Your task to perform on an android device: Search for pizza restaurants on Maps Image 0: 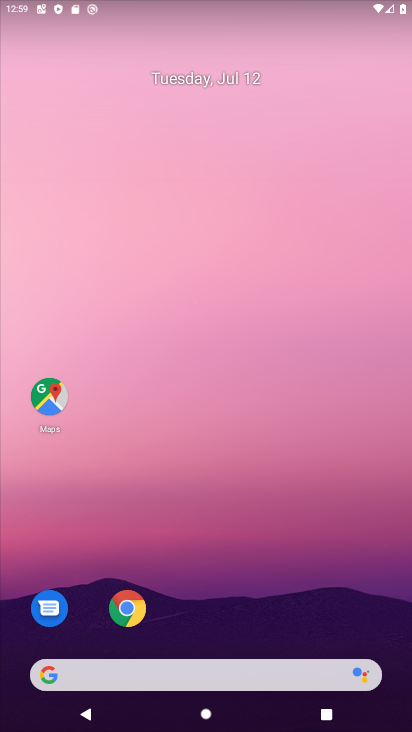
Step 0: click (304, 257)
Your task to perform on an android device: Search for pizza restaurants on Maps Image 1: 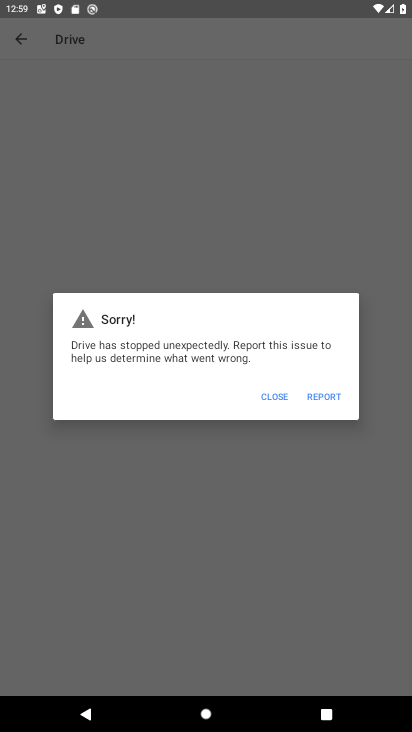
Step 1: press home button
Your task to perform on an android device: Search for pizza restaurants on Maps Image 2: 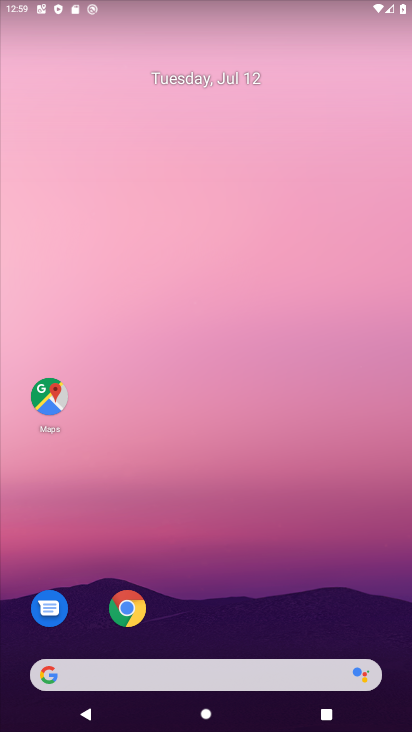
Step 2: drag from (251, 542) to (282, 246)
Your task to perform on an android device: Search for pizza restaurants on Maps Image 3: 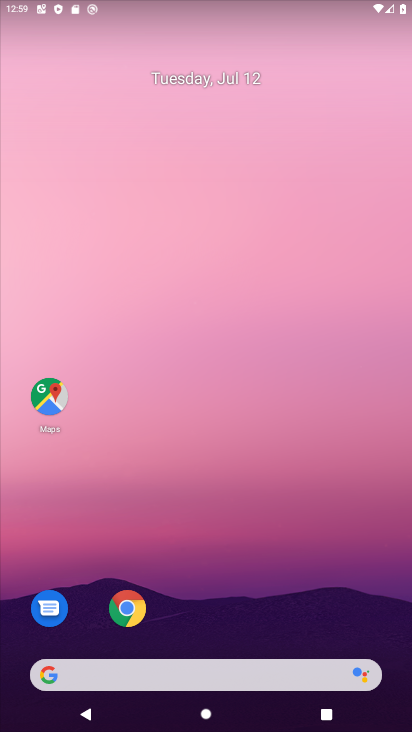
Step 3: drag from (267, 530) to (267, 305)
Your task to perform on an android device: Search for pizza restaurants on Maps Image 4: 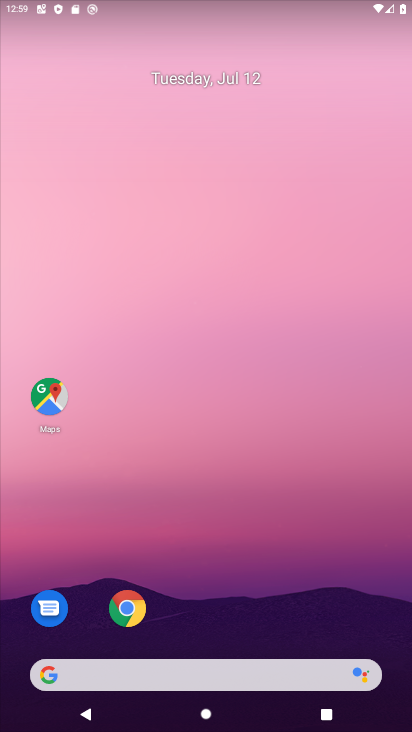
Step 4: drag from (281, 536) to (277, 128)
Your task to perform on an android device: Search for pizza restaurants on Maps Image 5: 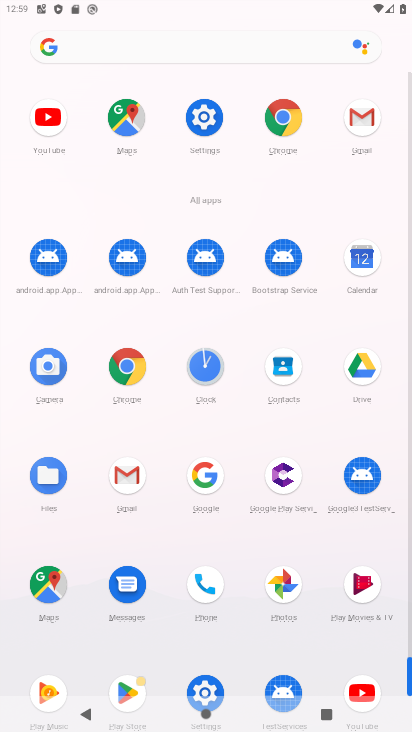
Step 5: click (115, 92)
Your task to perform on an android device: Search for pizza restaurants on Maps Image 6: 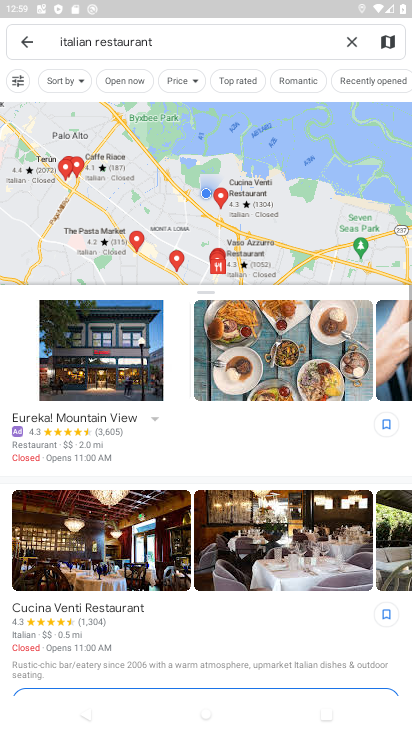
Step 6: click (343, 39)
Your task to perform on an android device: Search for pizza restaurants on Maps Image 7: 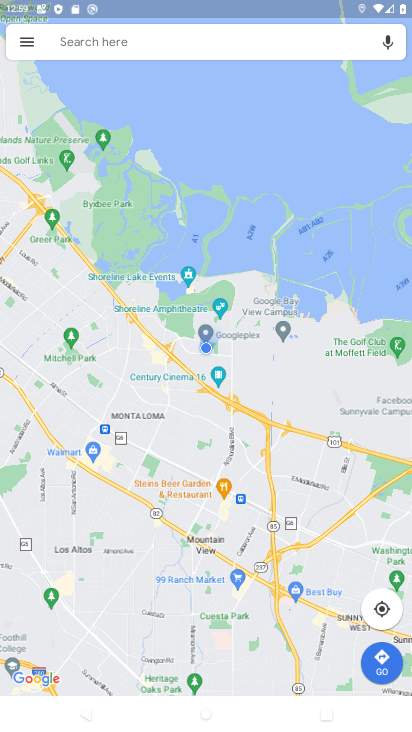
Step 7: click (198, 27)
Your task to perform on an android device: Search for pizza restaurants on Maps Image 8: 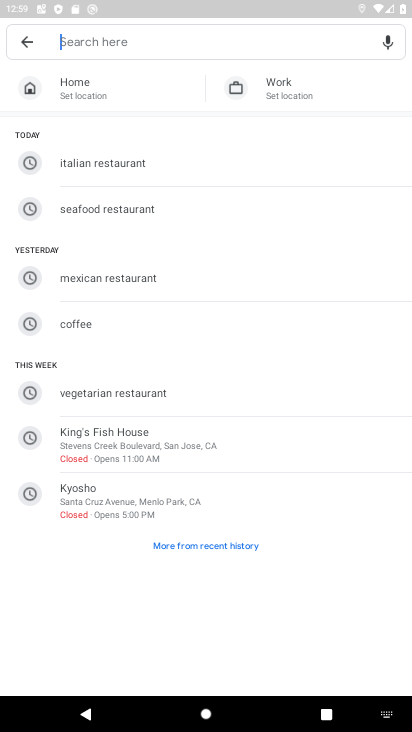
Step 8: type " pizza restaurants "
Your task to perform on an android device: Search for pizza restaurants on Maps Image 9: 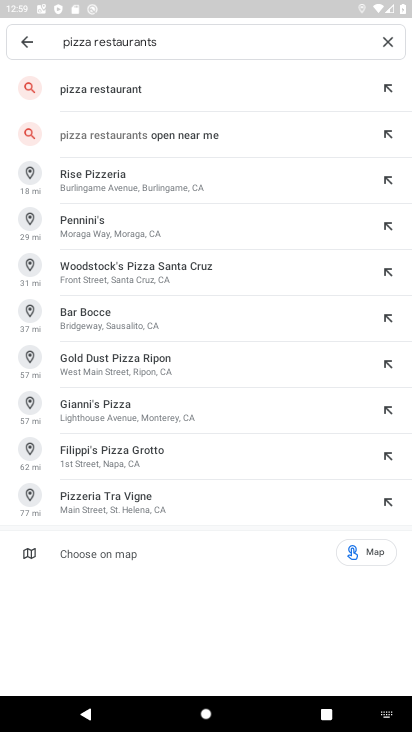
Step 9: click (102, 96)
Your task to perform on an android device: Search for pizza restaurants on Maps Image 10: 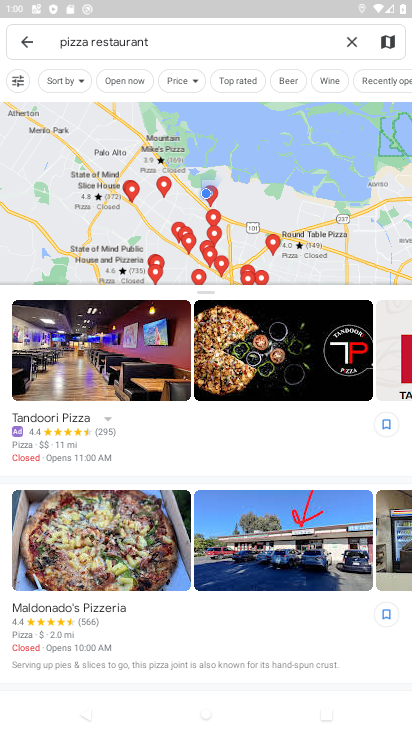
Step 10: task complete